Your task to perform on an android device: Go to network settings Image 0: 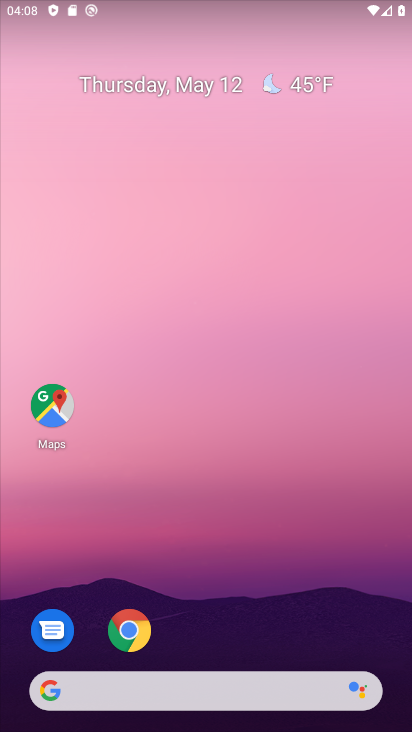
Step 0: drag from (231, 593) to (305, 52)
Your task to perform on an android device: Go to network settings Image 1: 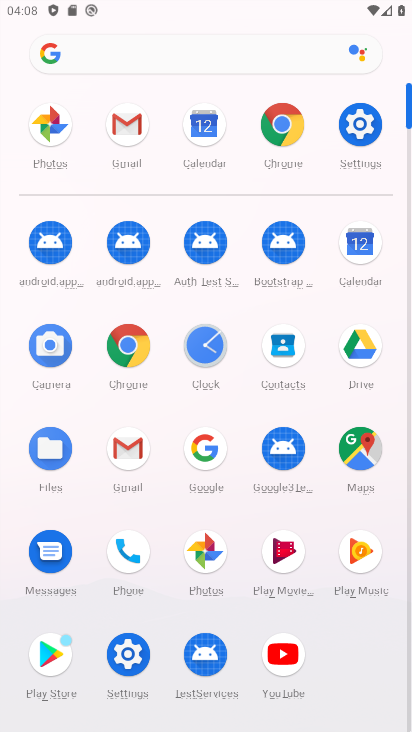
Step 1: click (361, 136)
Your task to perform on an android device: Go to network settings Image 2: 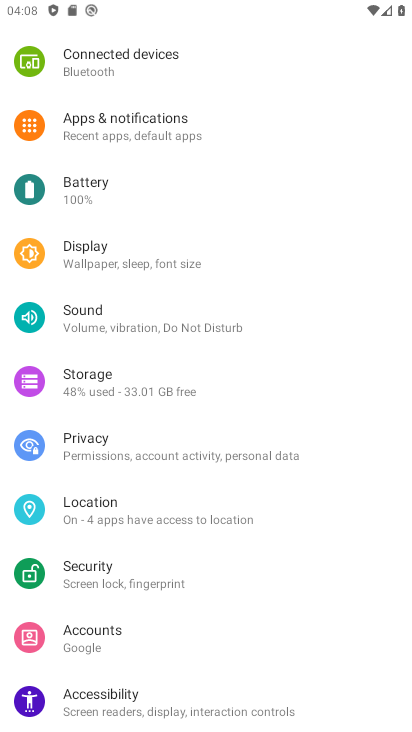
Step 2: drag from (172, 152) to (78, 599)
Your task to perform on an android device: Go to network settings Image 3: 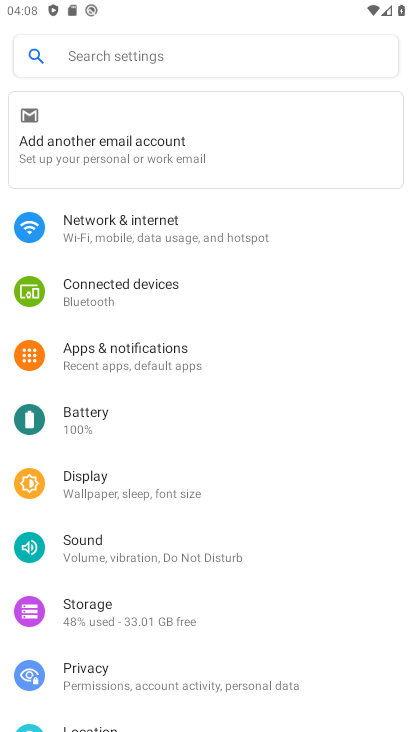
Step 3: click (126, 243)
Your task to perform on an android device: Go to network settings Image 4: 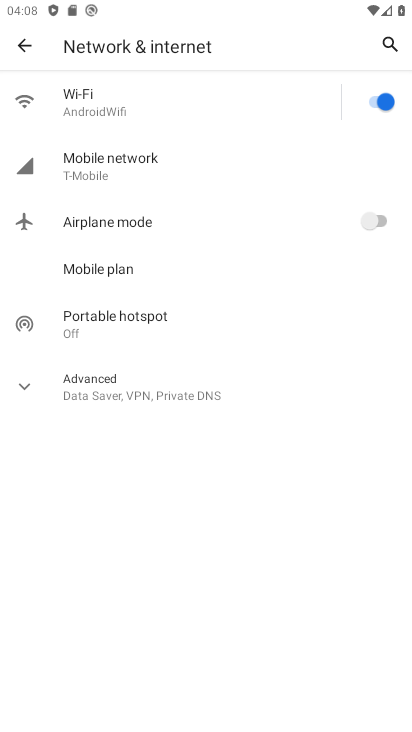
Step 4: click (167, 144)
Your task to perform on an android device: Go to network settings Image 5: 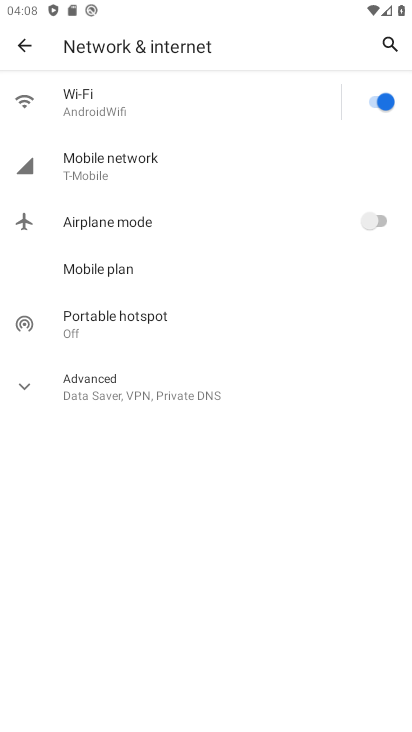
Step 5: task complete